Your task to perform on an android device: turn off notifications in google photos Image 0: 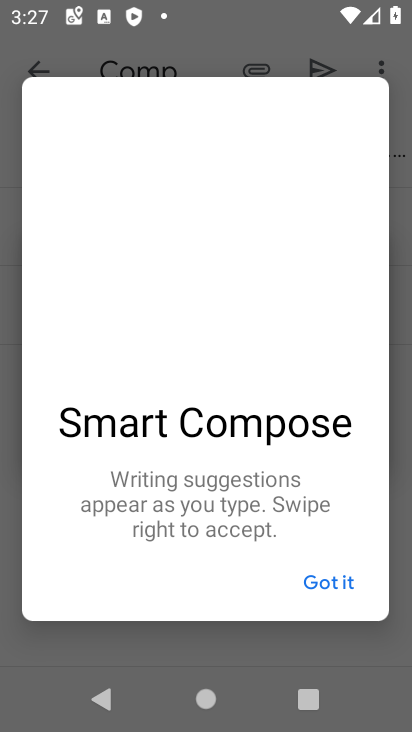
Step 0: press home button
Your task to perform on an android device: turn off notifications in google photos Image 1: 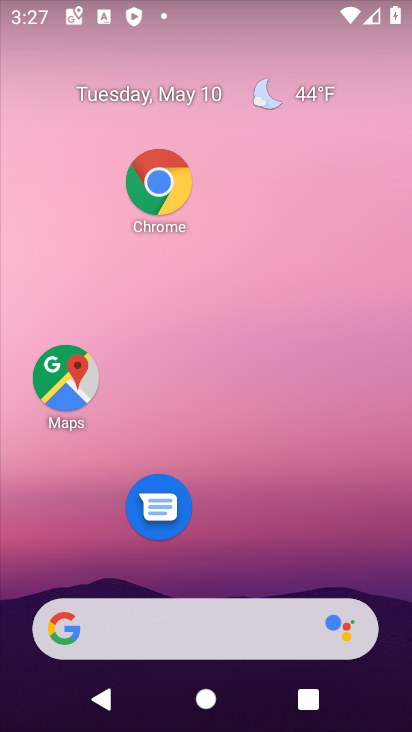
Step 1: drag from (289, 478) to (207, 186)
Your task to perform on an android device: turn off notifications in google photos Image 2: 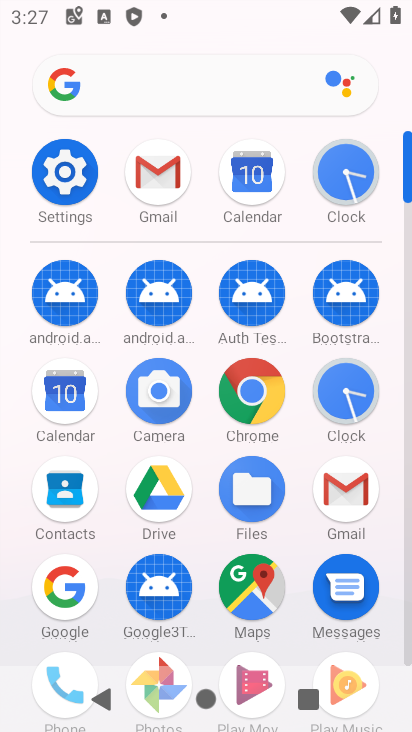
Step 2: click (161, 660)
Your task to perform on an android device: turn off notifications in google photos Image 3: 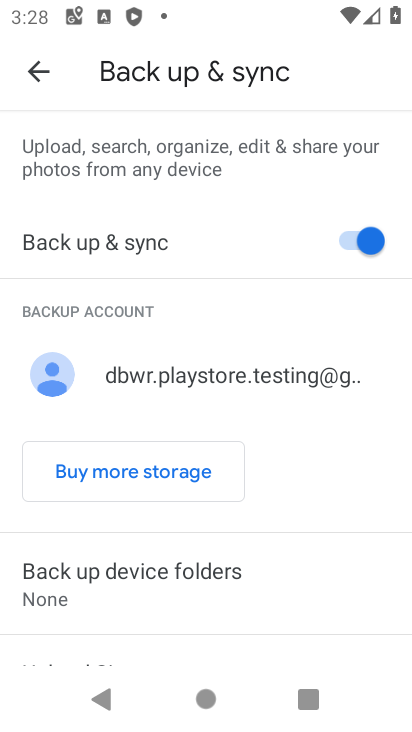
Step 3: drag from (151, 618) to (143, 462)
Your task to perform on an android device: turn off notifications in google photos Image 4: 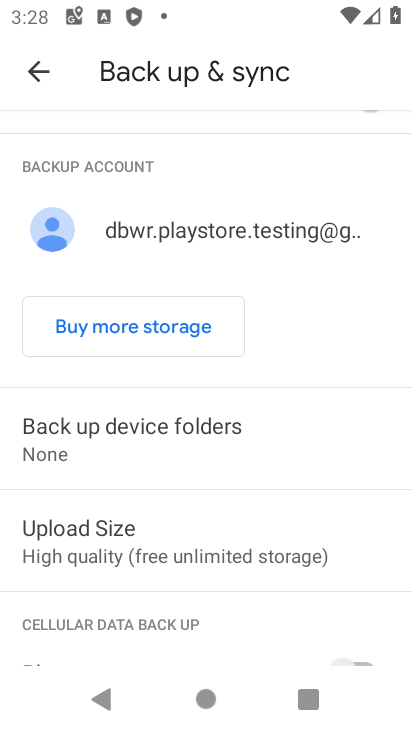
Step 4: click (130, 569)
Your task to perform on an android device: turn off notifications in google photos Image 5: 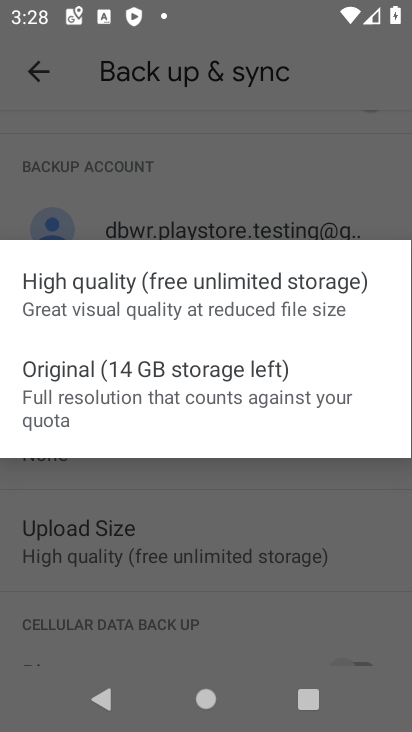
Step 5: click (117, 389)
Your task to perform on an android device: turn off notifications in google photos Image 6: 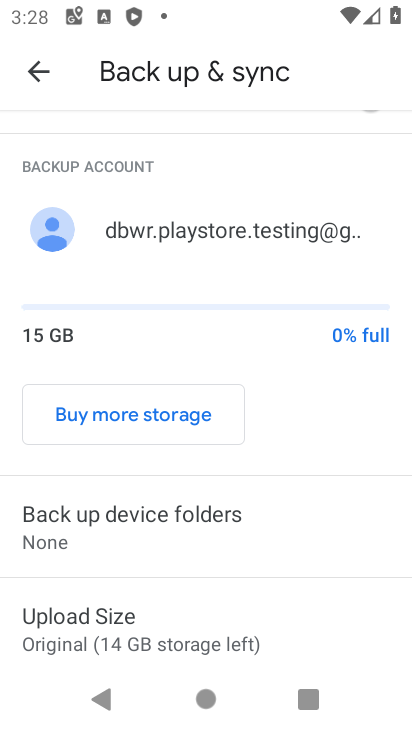
Step 6: task complete